Your task to perform on an android device: Open the web browser Image 0: 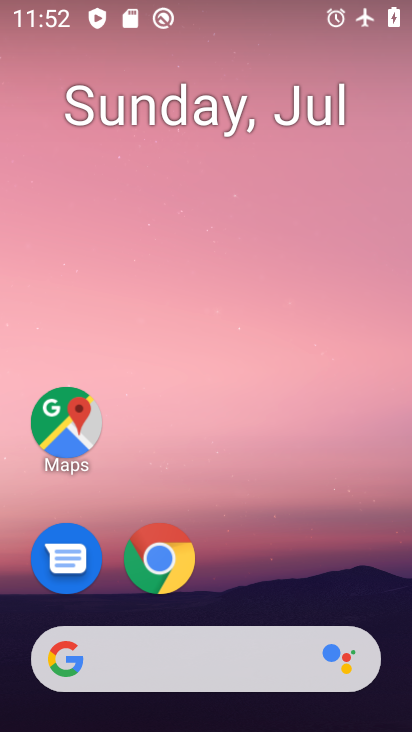
Step 0: click (170, 557)
Your task to perform on an android device: Open the web browser Image 1: 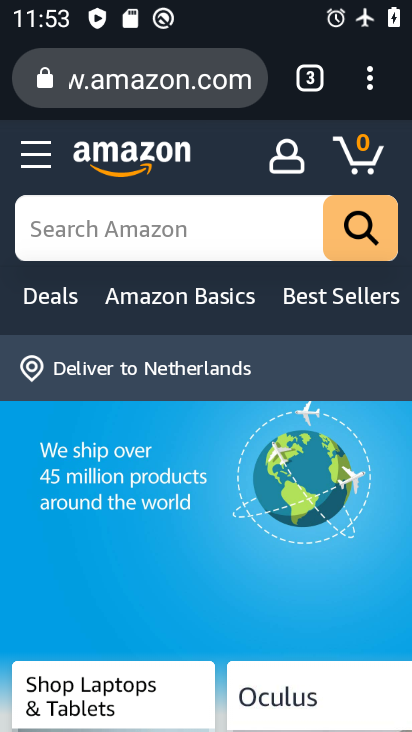
Step 1: task complete